Your task to perform on an android device: toggle data saver in the chrome app Image 0: 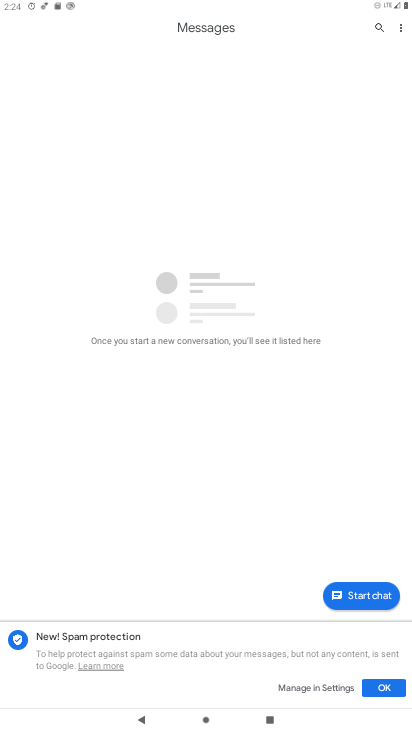
Step 0: press home button
Your task to perform on an android device: toggle data saver in the chrome app Image 1: 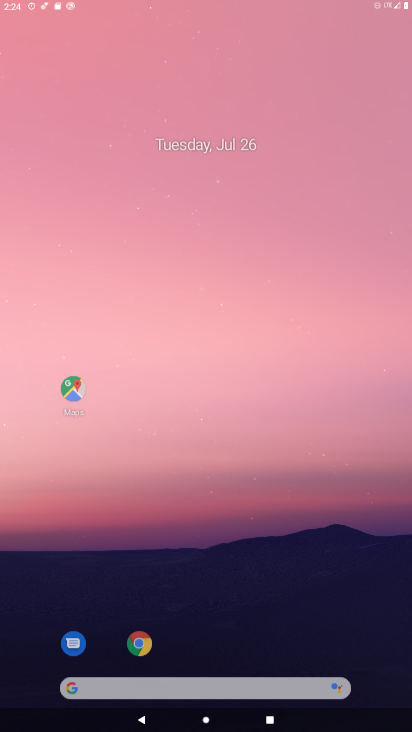
Step 1: drag from (326, 704) to (195, 10)
Your task to perform on an android device: toggle data saver in the chrome app Image 2: 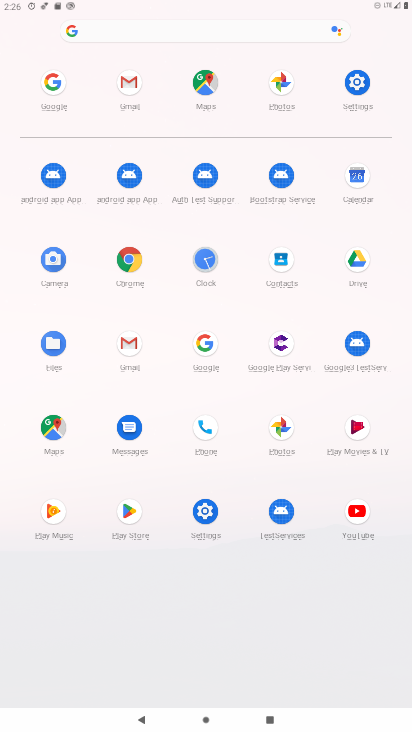
Step 2: click (130, 262)
Your task to perform on an android device: toggle data saver in the chrome app Image 3: 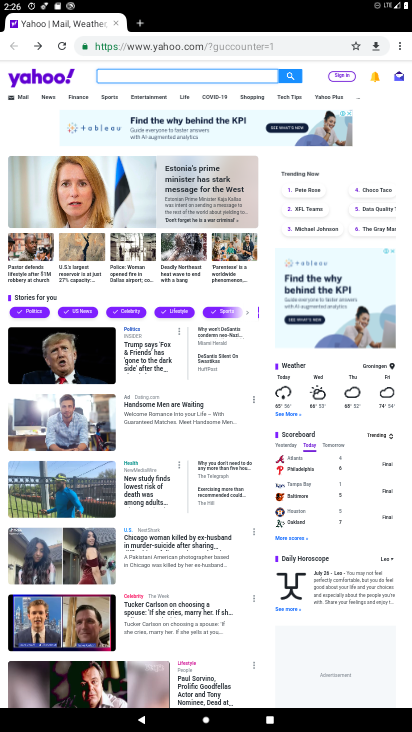
Step 3: click (401, 47)
Your task to perform on an android device: toggle data saver in the chrome app Image 4: 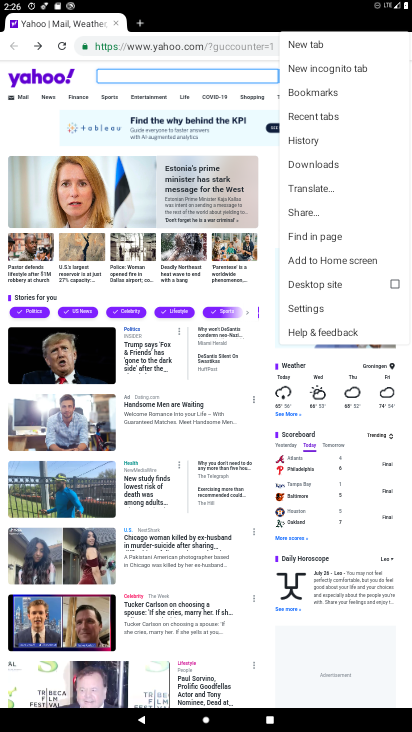
Step 4: click (323, 315)
Your task to perform on an android device: toggle data saver in the chrome app Image 5: 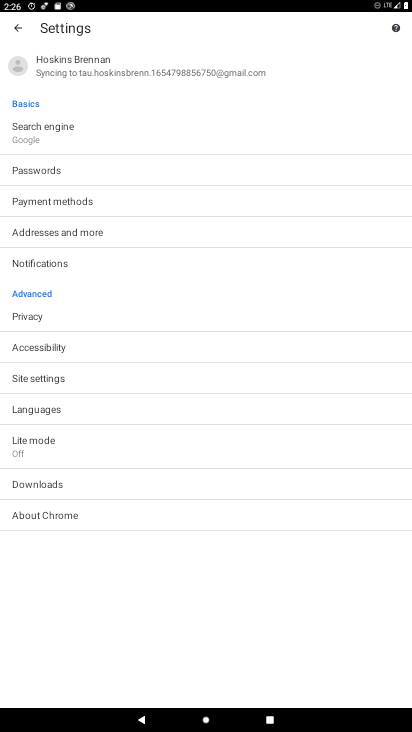
Step 5: click (90, 446)
Your task to perform on an android device: toggle data saver in the chrome app Image 6: 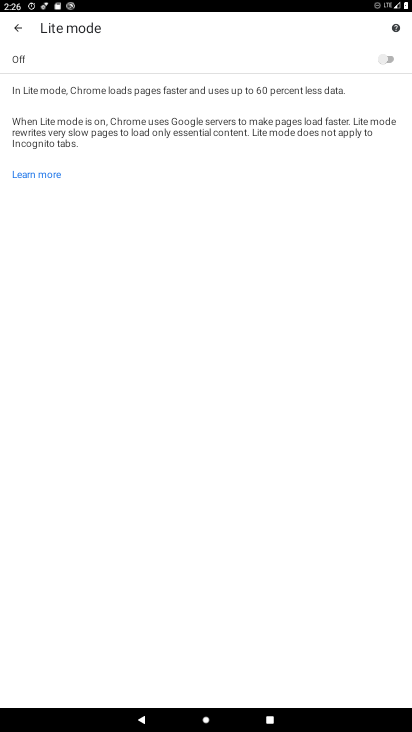
Step 6: click (351, 69)
Your task to perform on an android device: toggle data saver in the chrome app Image 7: 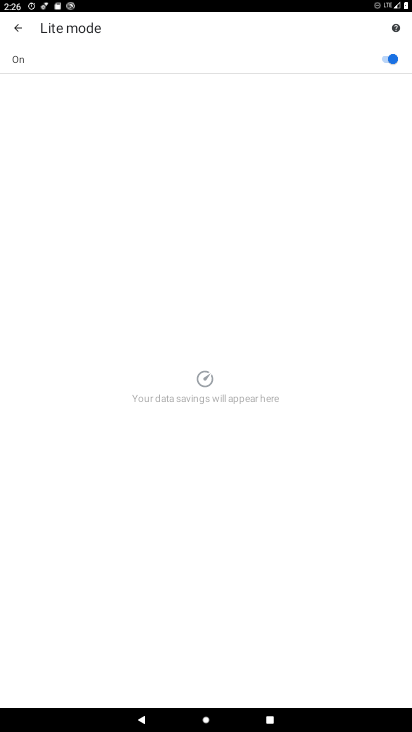
Step 7: task complete